Your task to perform on an android device: Go to privacy settings Image 0: 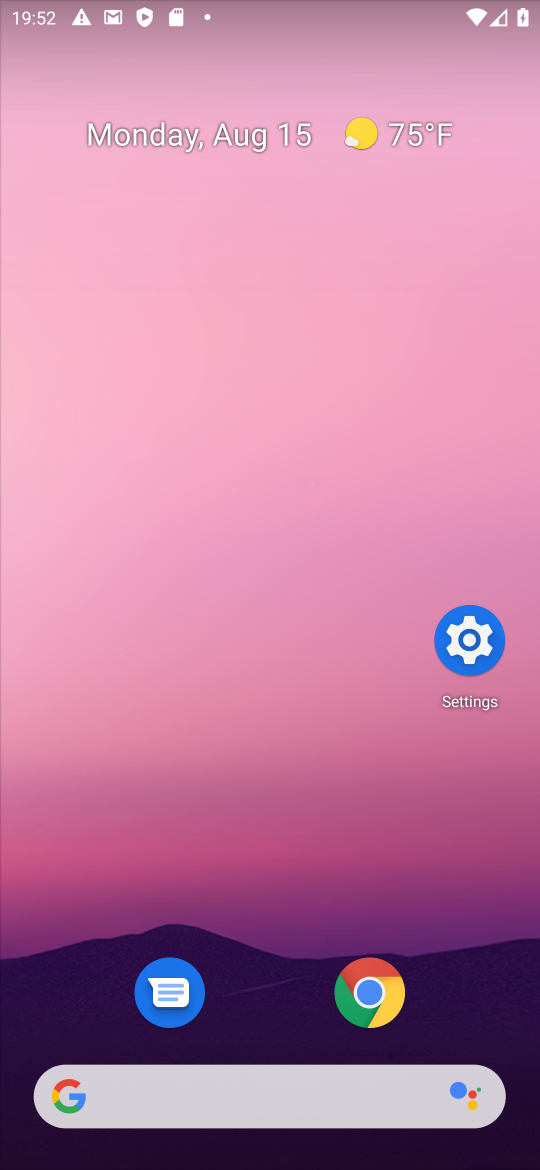
Step 0: click (478, 641)
Your task to perform on an android device: Go to privacy settings Image 1: 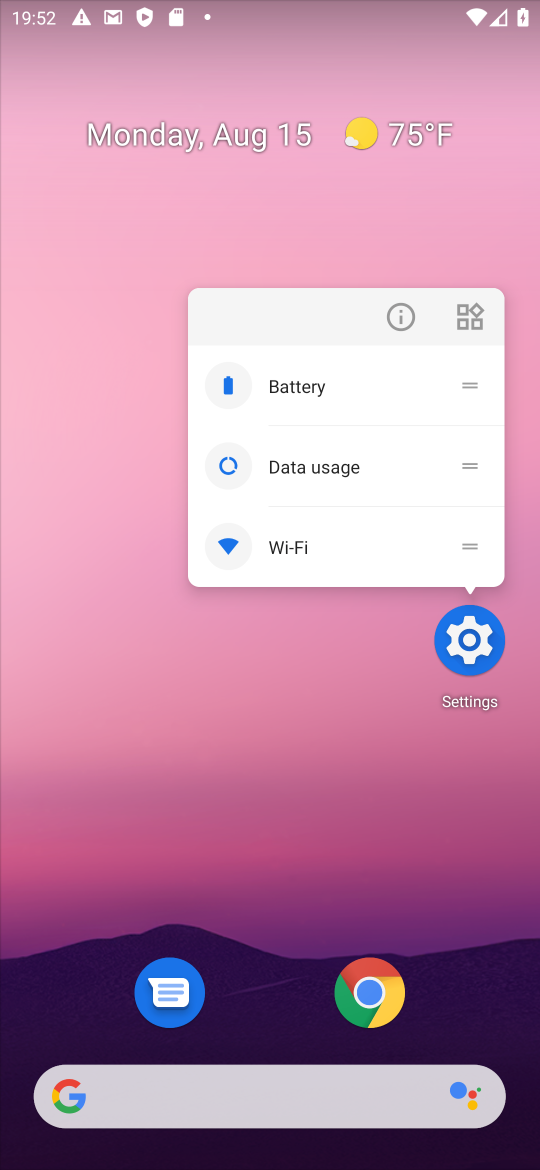
Step 1: click (475, 640)
Your task to perform on an android device: Go to privacy settings Image 2: 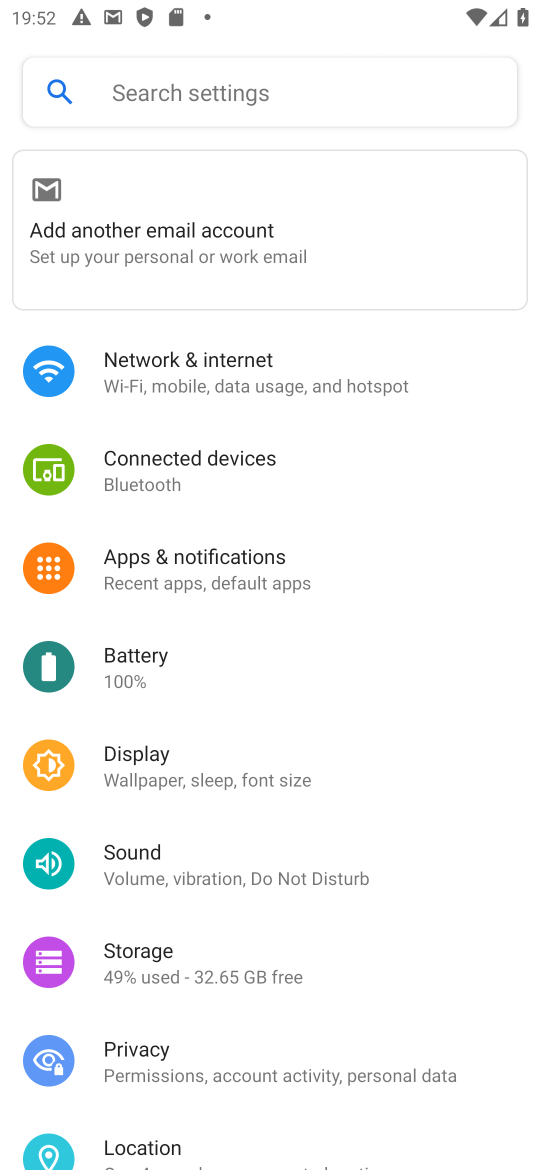
Step 2: click (164, 1064)
Your task to perform on an android device: Go to privacy settings Image 3: 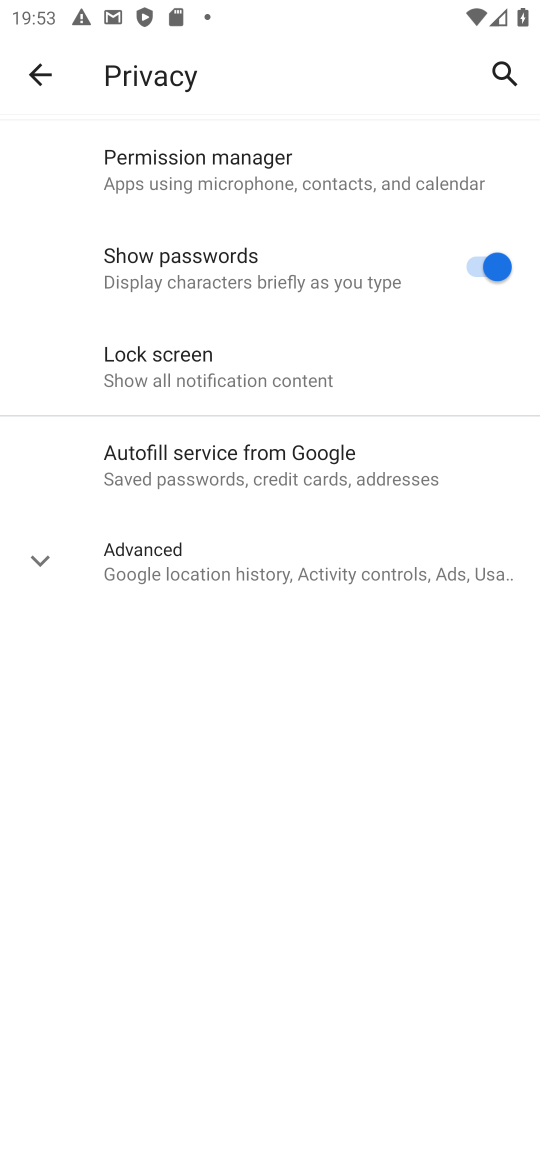
Step 3: task complete